Your task to perform on an android device: Open calendar and show me the third week of next month Image 0: 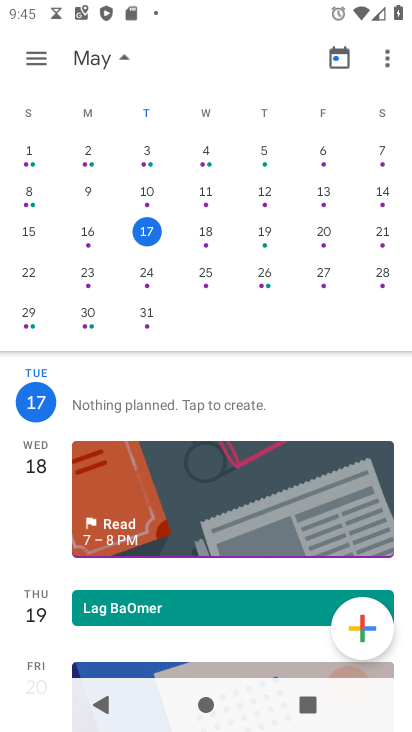
Step 0: press home button
Your task to perform on an android device: Open calendar and show me the third week of next month Image 1: 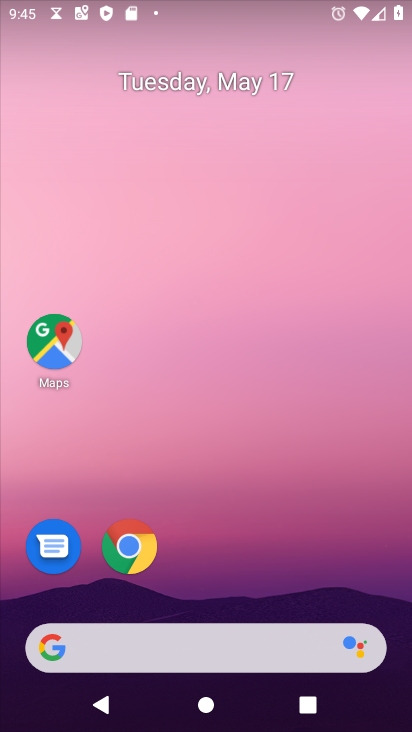
Step 1: drag from (289, 602) to (341, 75)
Your task to perform on an android device: Open calendar and show me the third week of next month Image 2: 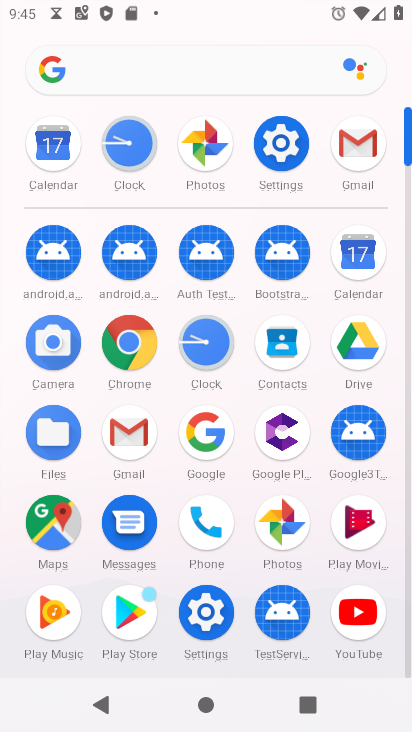
Step 2: click (367, 250)
Your task to perform on an android device: Open calendar and show me the third week of next month Image 3: 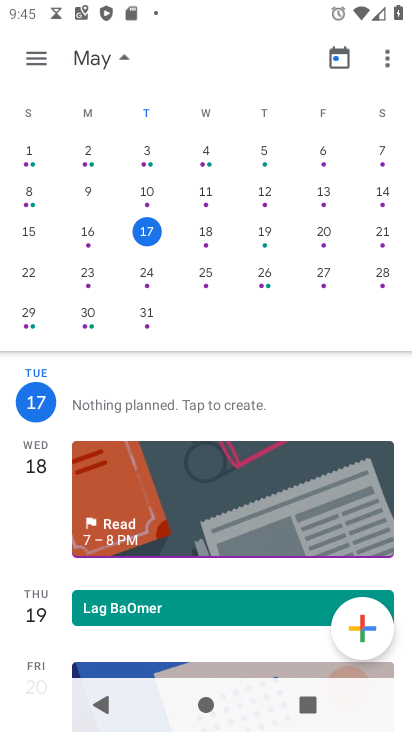
Step 3: drag from (373, 220) to (64, 234)
Your task to perform on an android device: Open calendar and show me the third week of next month Image 4: 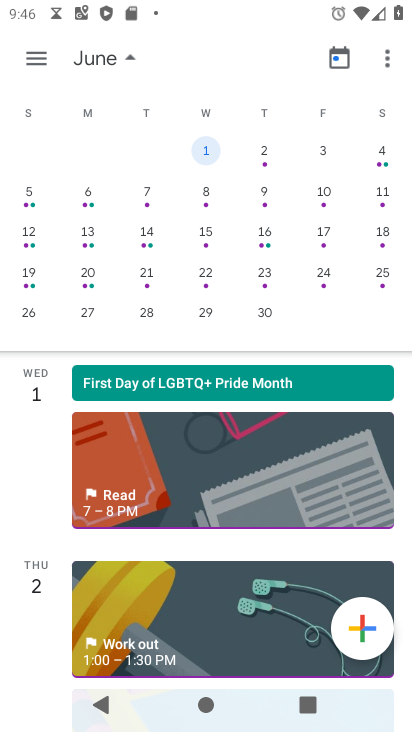
Step 4: click (44, 240)
Your task to perform on an android device: Open calendar and show me the third week of next month Image 5: 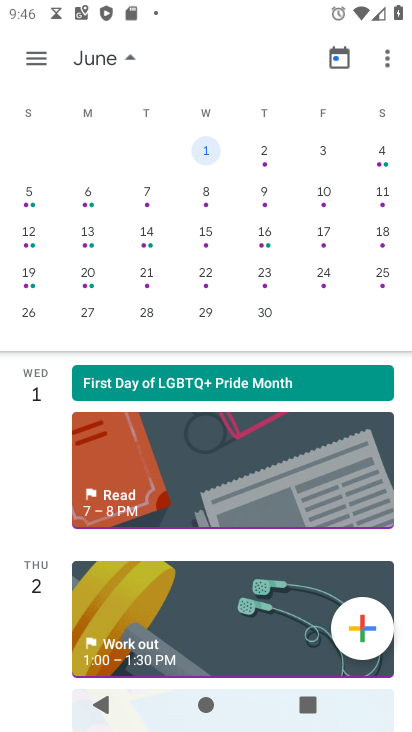
Step 5: click (42, 235)
Your task to perform on an android device: Open calendar and show me the third week of next month Image 6: 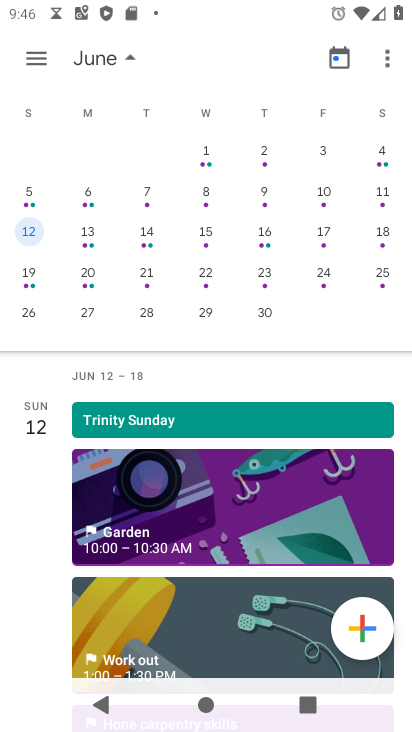
Step 6: task complete